Your task to perform on an android device: open app "Etsy: Buy & Sell Unique Items" (install if not already installed) and go to login screen Image 0: 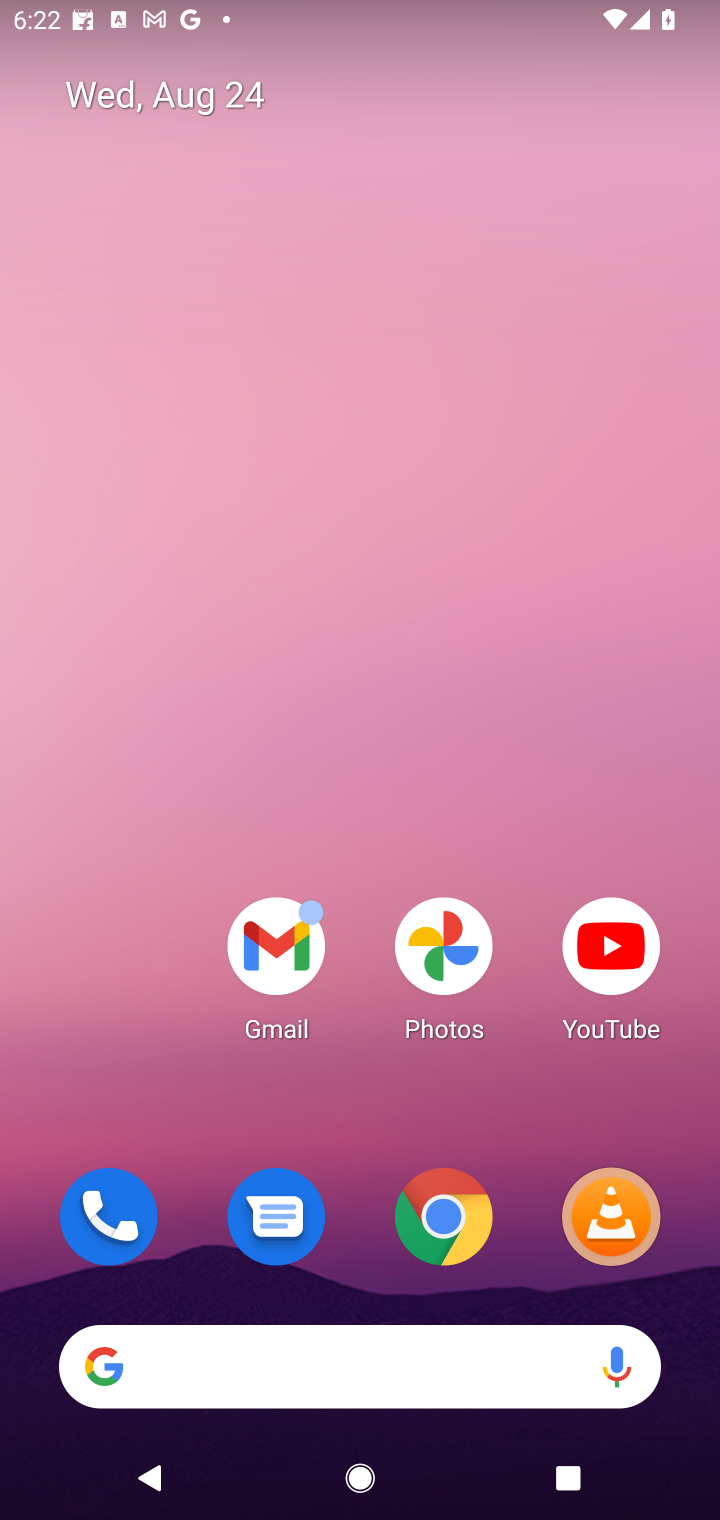
Step 0: drag from (353, 1115) to (374, 293)
Your task to perform on an android device: open app "Etsy: Buy & Sell Unique Items" (install if not already installed) and go to login screen Image 1: 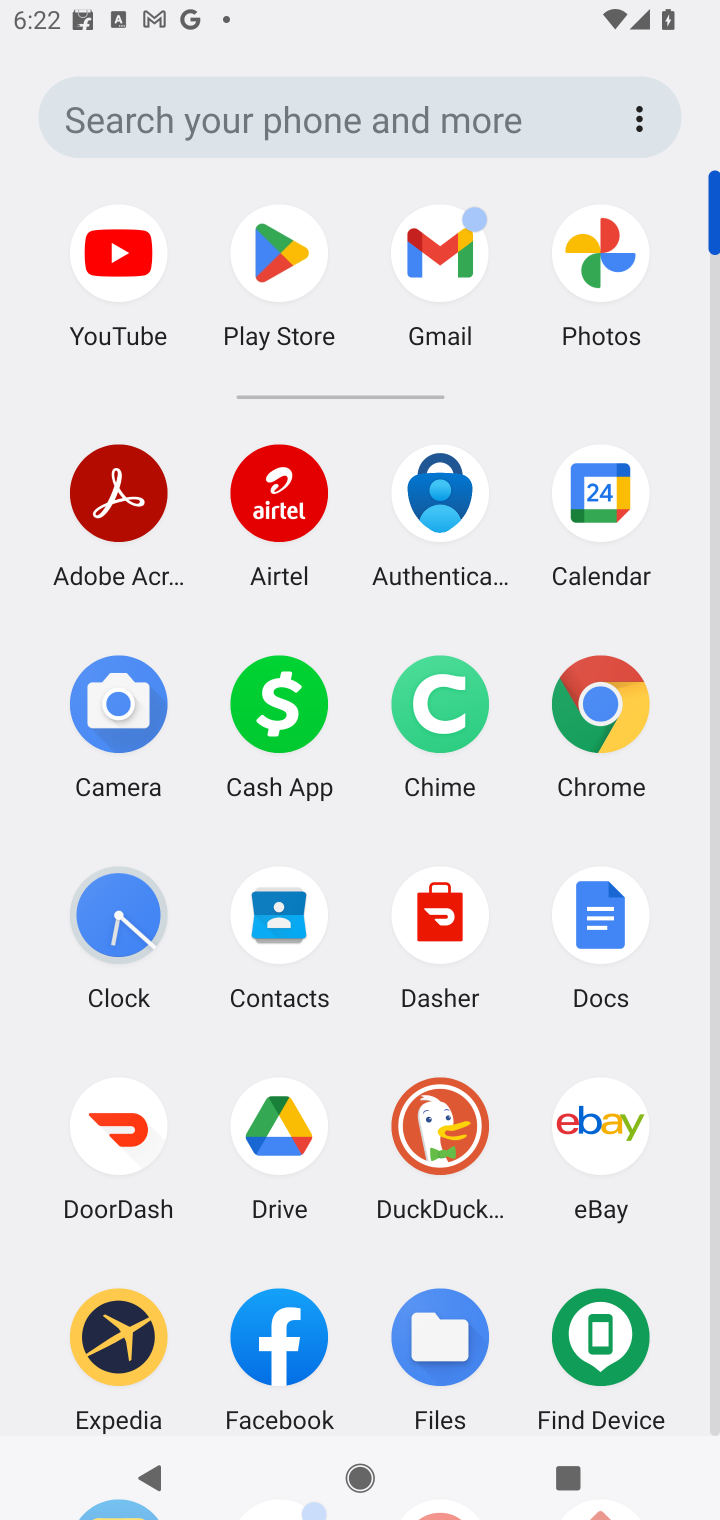
Step 1: click (266, 263)
Your task to perform on an android device: open app "Etsy: Buy & Sell Unique Items" (install if not already installed) and go to login screen Image 2: 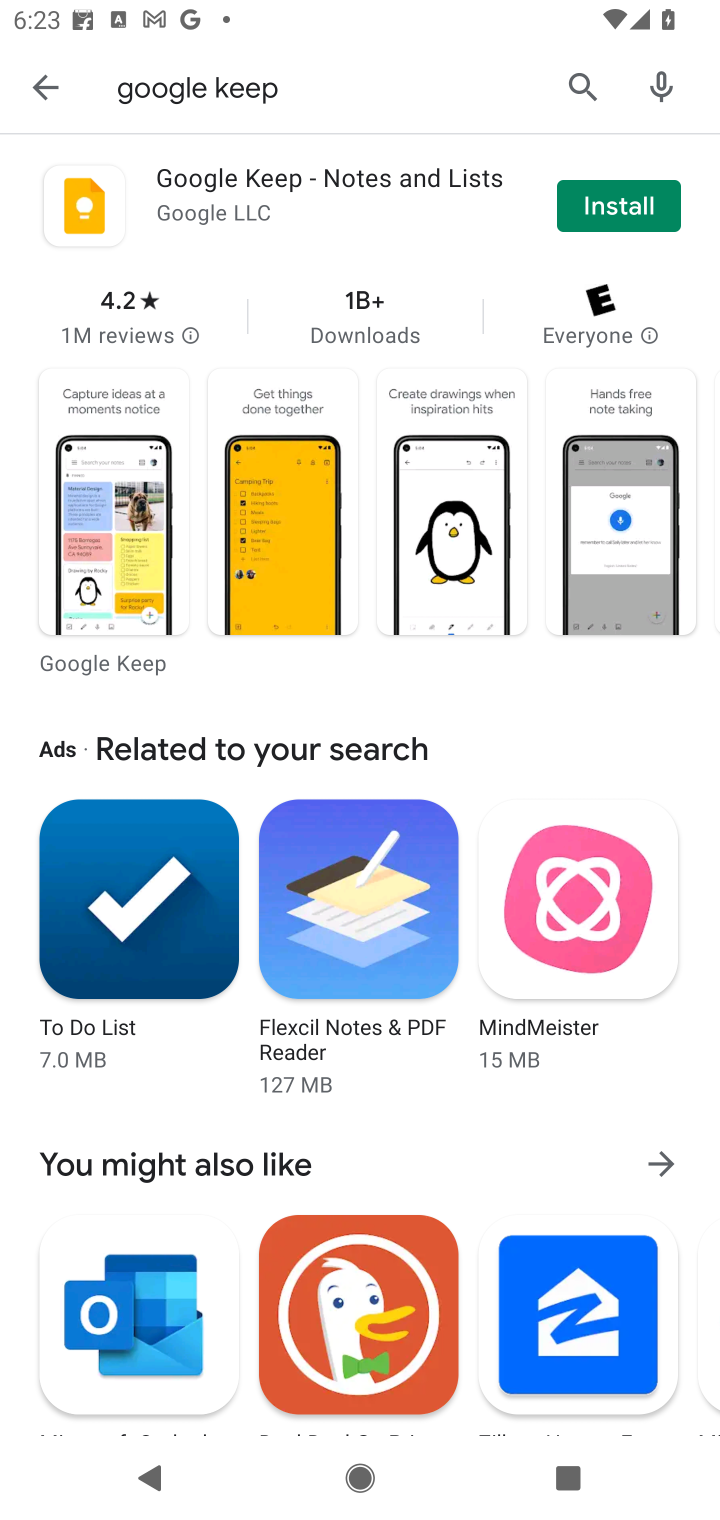
Step 2: click (575, 79)
Your task to perform on an android device: open app "Etsy: Buy & Sell Unique Items" (install if not already installed) and go to login screen Image 3: 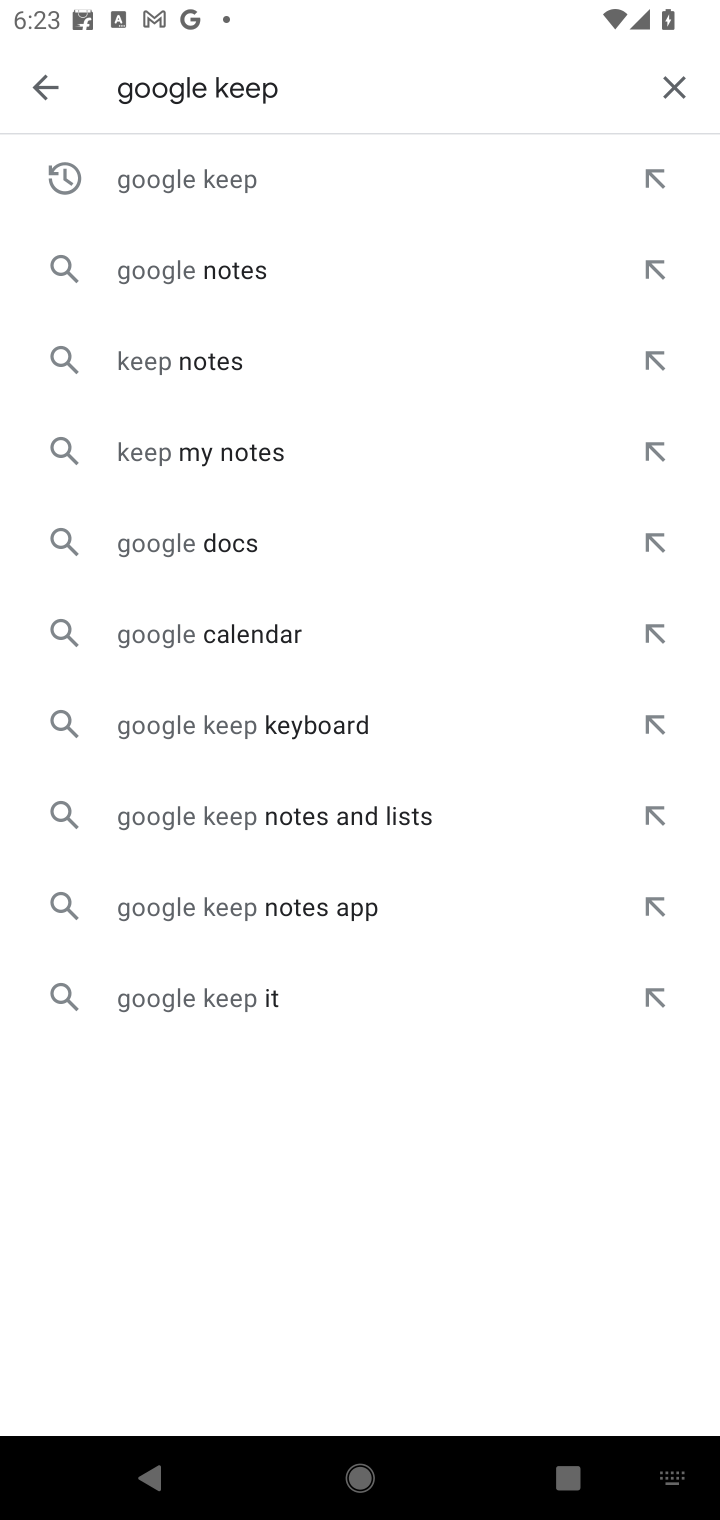
Step 3: click (689, 76)
Your task to perform on an android device: open app "Etsy: Buy & Sell Unique Items" (install if not already installed) and go to login screen Image 4: 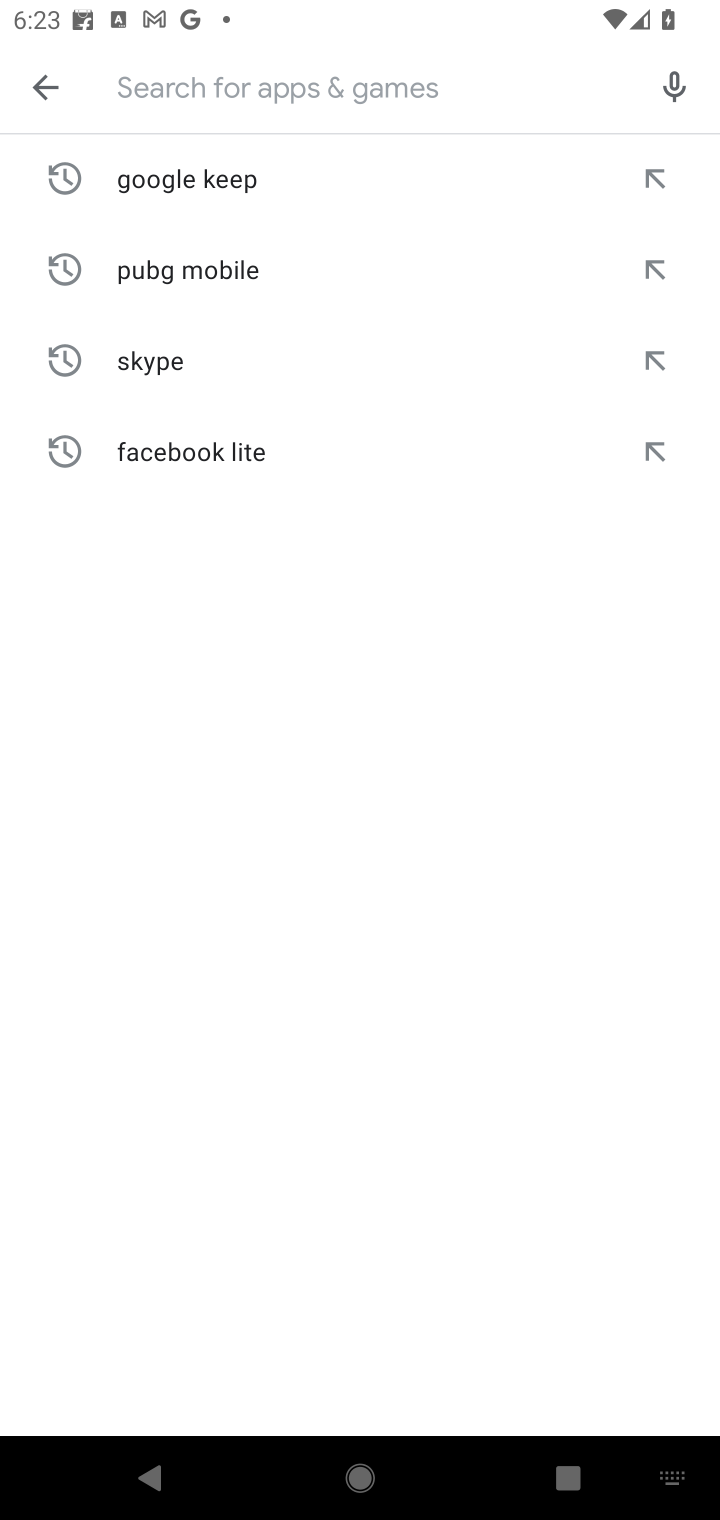
Step 4: type "Etsy: Buy & Sell Unique Items"
Your task to perform on an android device: open app "Etsy: Buy & Sell Unique Items" (install if not already installed) and go to login screen Image 5: 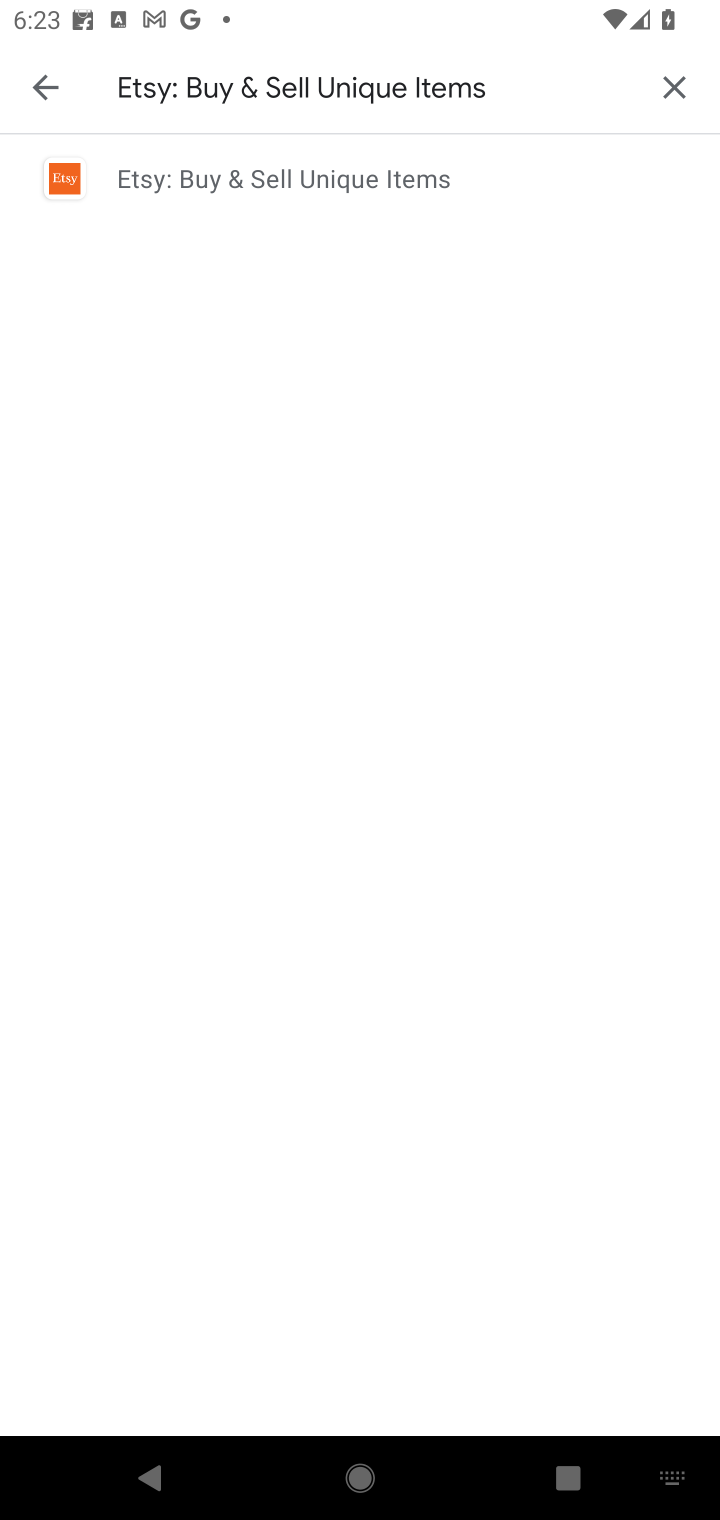
Step 5: click (298, 183)
Your task to perform on an android device: open app "Etsy: Buy & Sell Unique Items" (install if not already installed) and go to login screen Image 6: 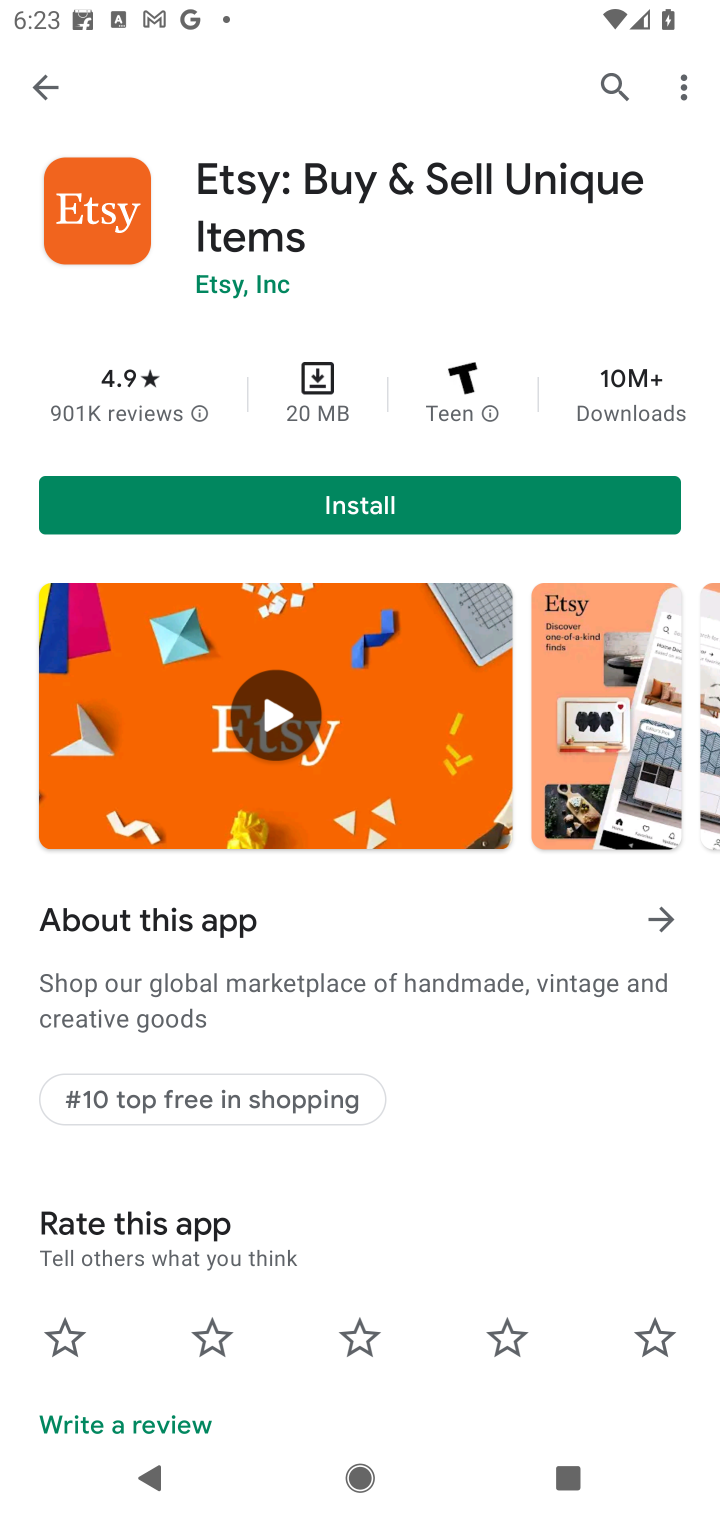
Step 6: click (254, 520)
Your task to perform on an android device: open app "Etsy: Buy & Sell Unique Items" (install if not already installed) and go to login screen Image 7: 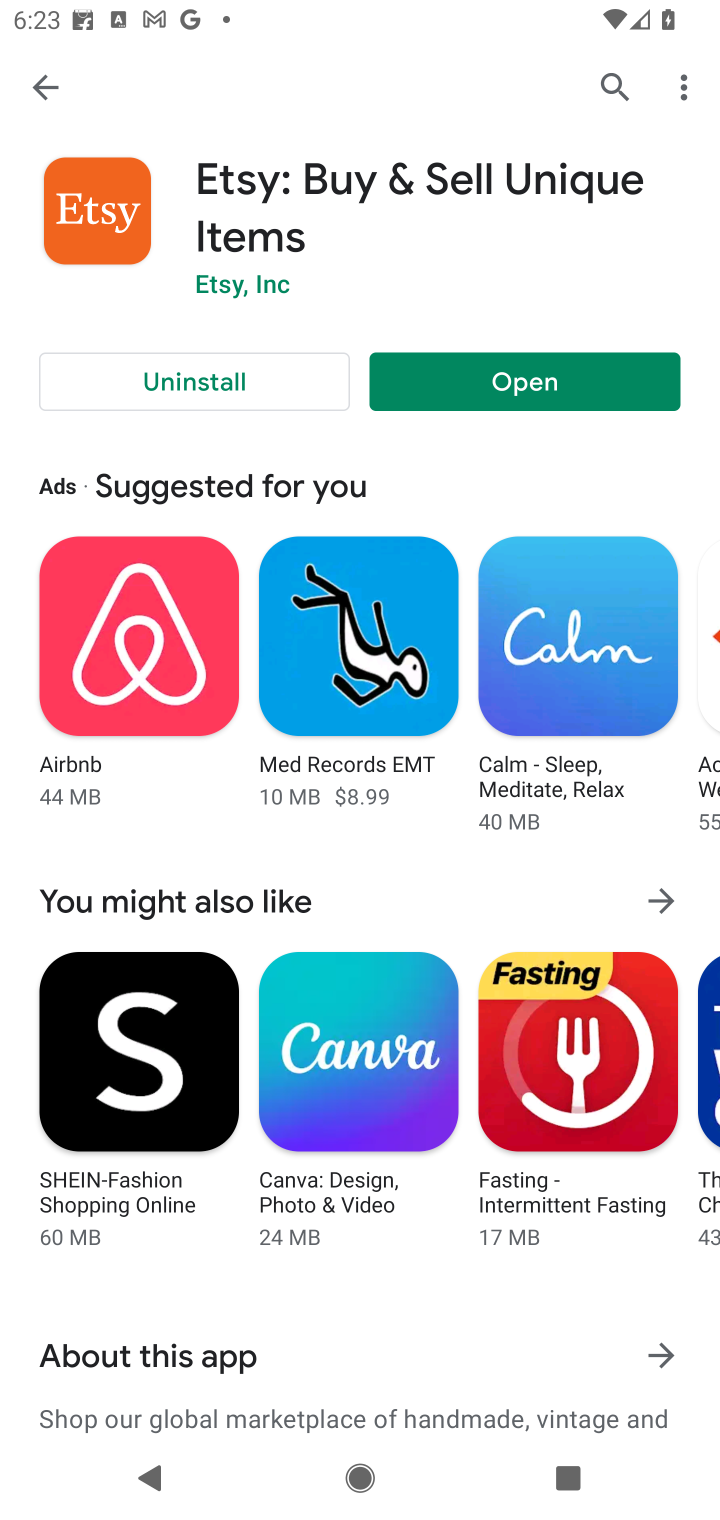
Step 7: click (470, 381)
Your task to perform on an android device: open app "Etsy: Buy & Sell Unique Items" (install if not already installed) and go to login screen Image 8: 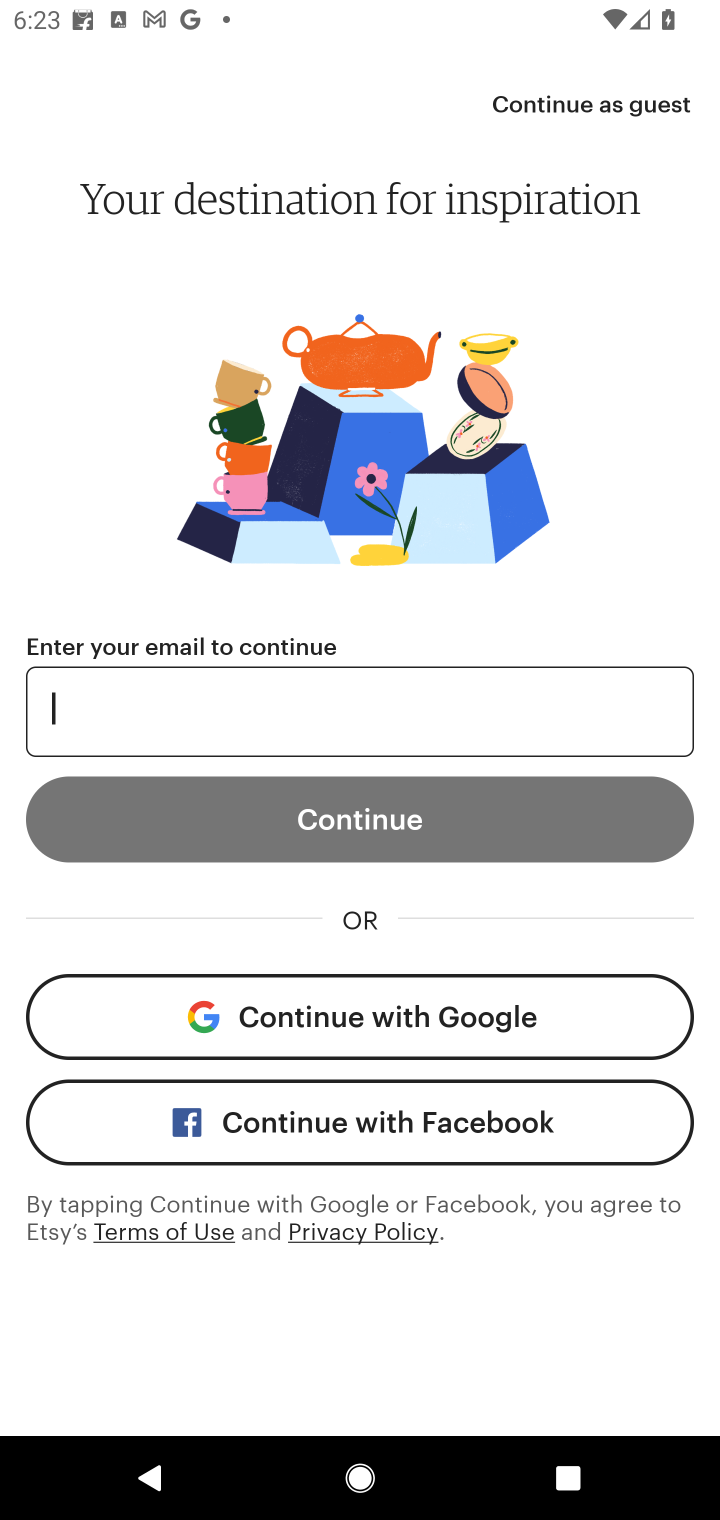
Step 8: task complete